Your task to perform on an android device: check storage Image 0: 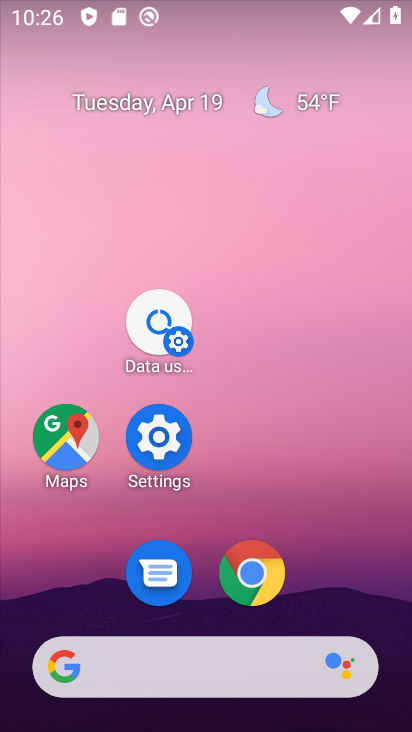
Step 0: click (159, 423)
Your task to perform on an android device: check storage Image 1: 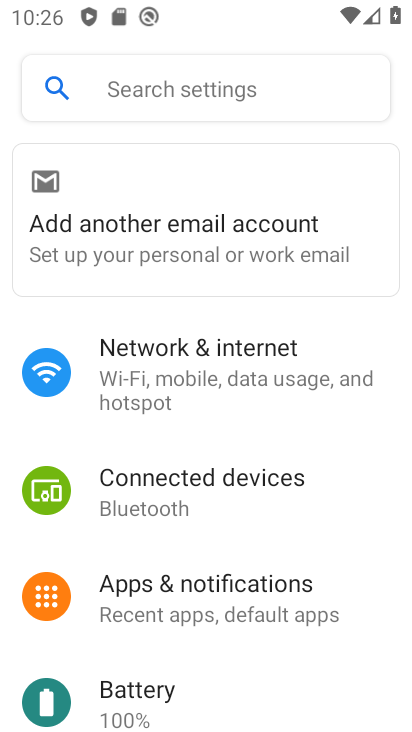
Step 1: drag from (389, 584) to (387, 173)
Your task to perform on an android device: check storage Image 2: 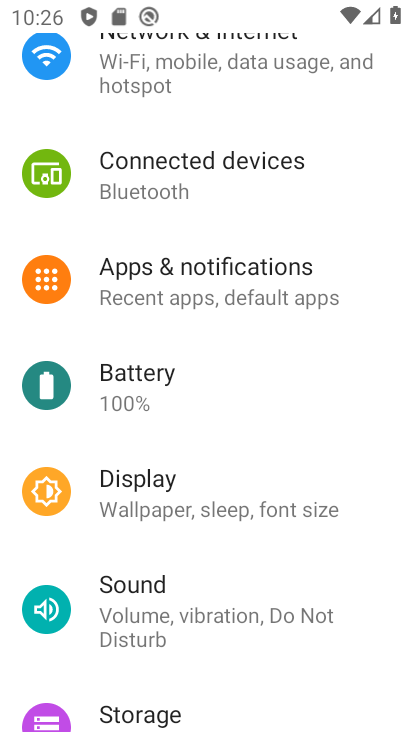
Step 2: drag from (247, 611) to (254, 451)
Your task to perform on an android device: check storage Image 3: 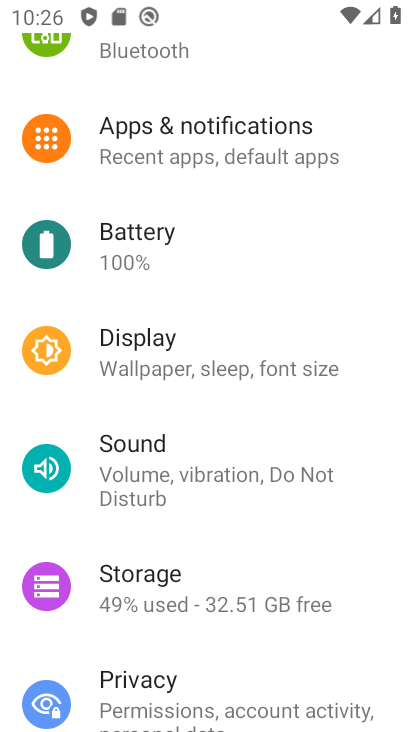
Step 3: click (142, 596)
Your task to perform on an android device: check storage Image 4: 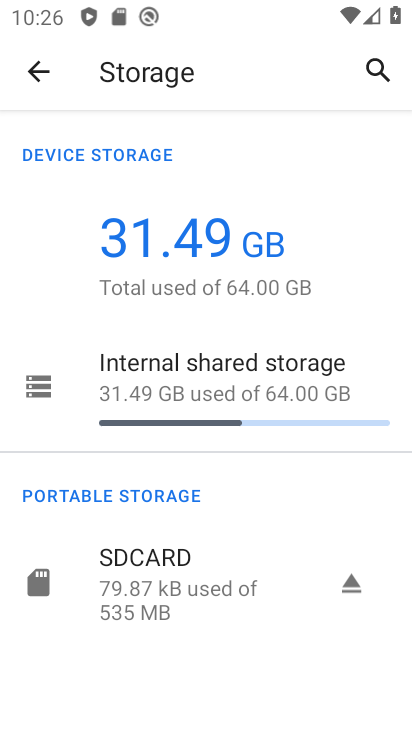
Step 4: click (164, 409)
Your task to perform on an android device: check storage Image 5: 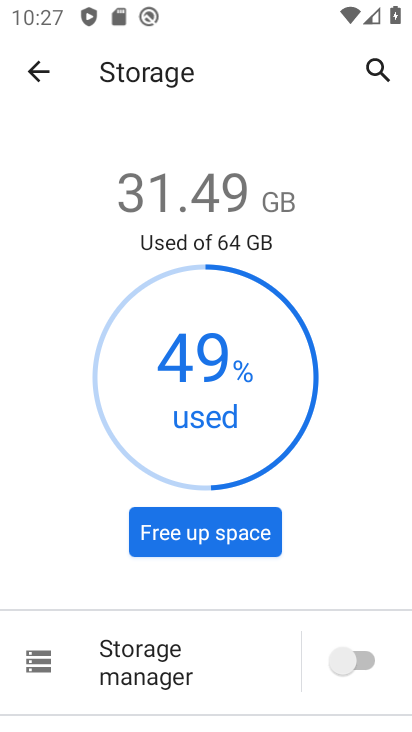
Step 5: task complete